Your task to perform on an android device: star an email in the gmail app Image 0: 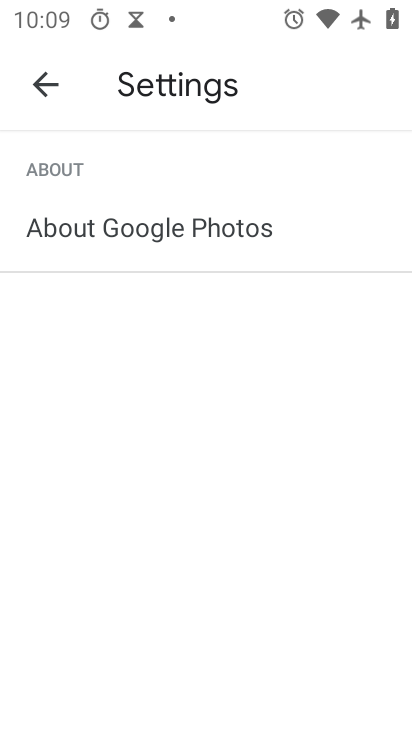
Step 0: press home button
Your task to perform on an android device: star an email in the gmail app Image 1: 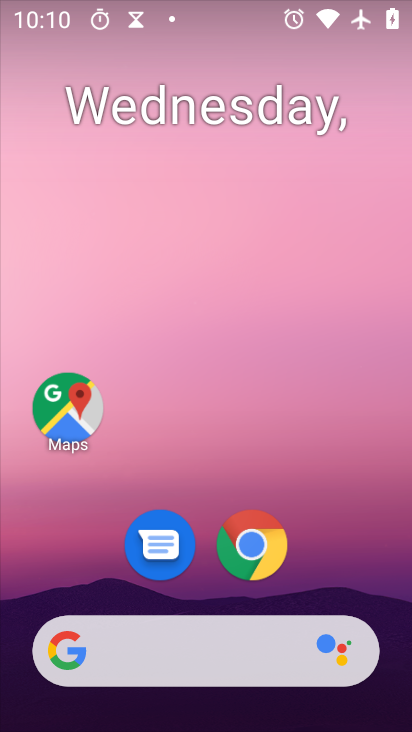
Step 1: drag from (143, 655) to (302, 182)
Your task to perform on an android device: star an email in the gmail app Image 2: 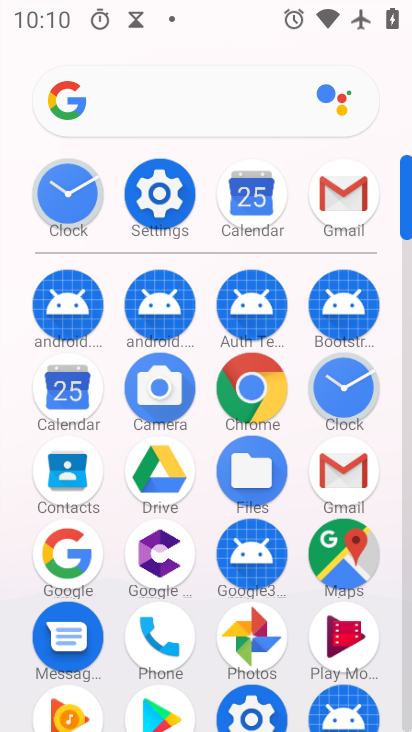
Step 2: click (354, 211)
Your task to perform on an android device: star an email in the gmail app Image 3: 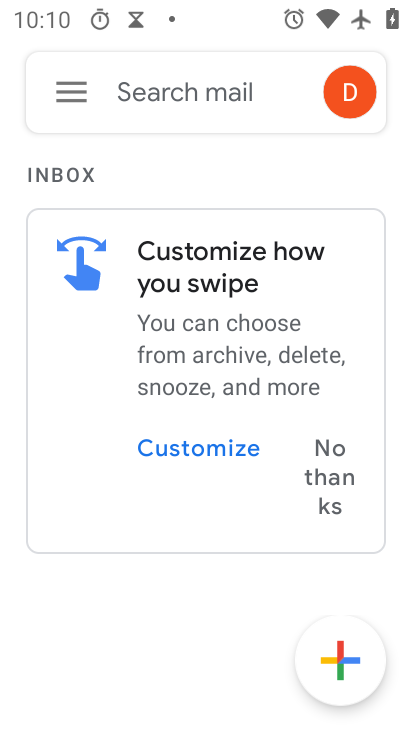
Step 3: task complete